Your task to perform on an android device: Turn on the flashlight Image 0: 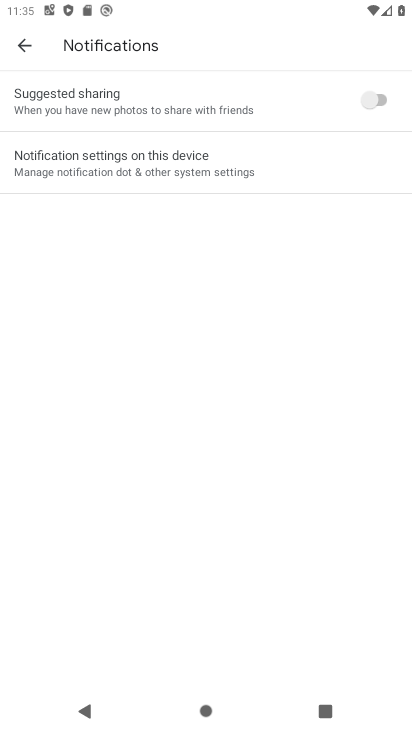
Step 0: press home button
Your task to perform on an android device: Turn on the flashlight Image 1: 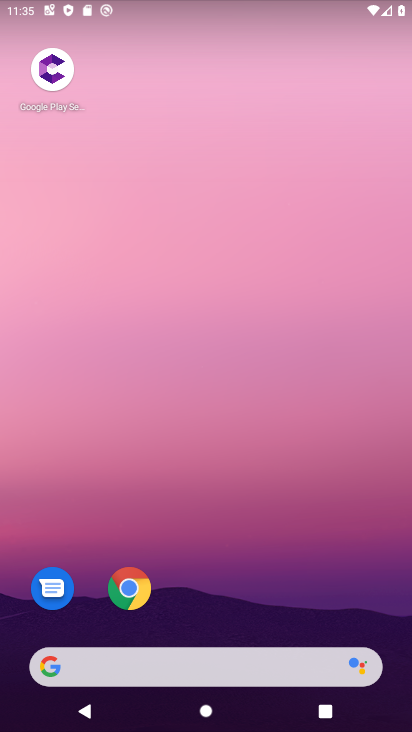
Step 1: drag from (237, 431) to (216, 62)
Your task to perform on an android device: Turn on the flashlight Image 2: 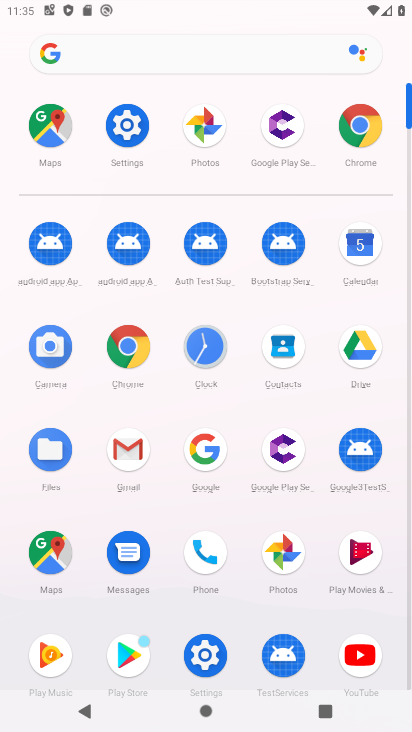
Step 2: click (122, 125)
Your task to perform on an android device: Turn on the flashlight Image 3: 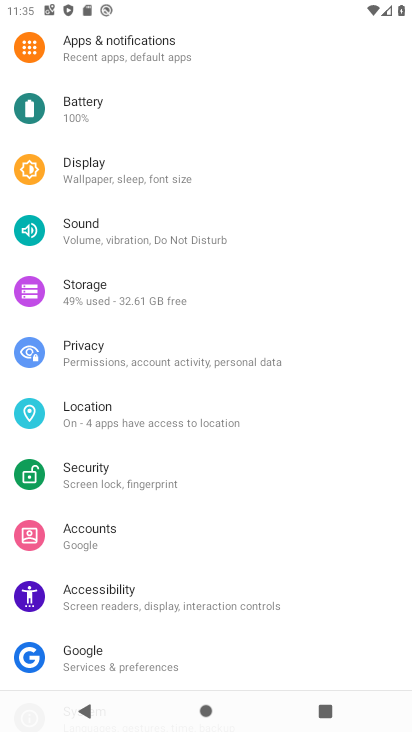
Step 3: drag from (211, 145) to (271, 617)
Your task to perform on an android device: Turn on the flashlight Image 4: 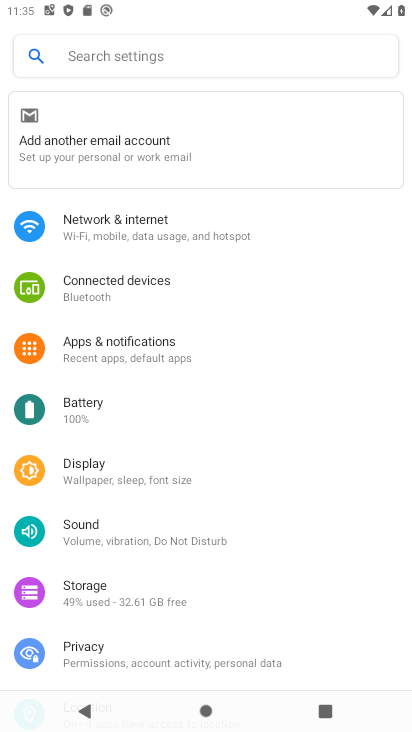
Step 4: click (260, 51)
Your task to perform on an android device: Turn on the flashlight Image 5: 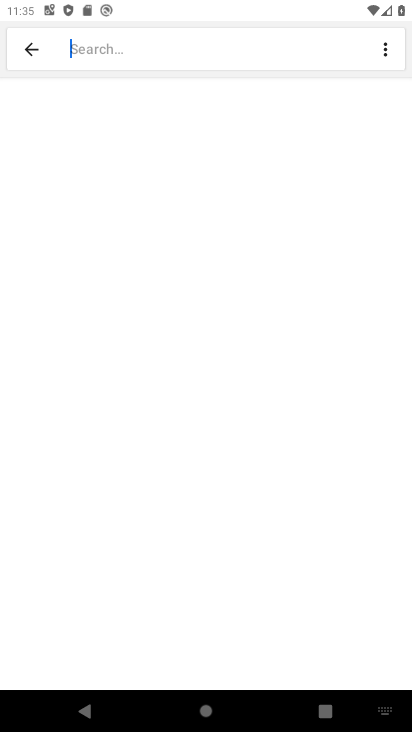
Step 5: type ""
Your task to perform on an android device: Turn on the flashlight Image 6: 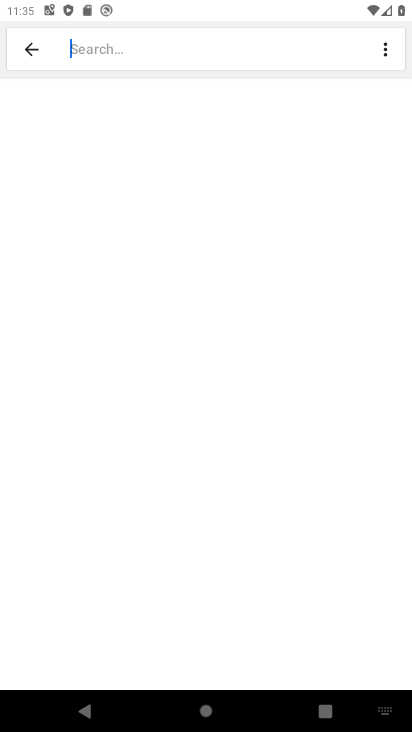
Step 6: type "flashlight"
Your task to perform on an android device: Turn on the flashlight Image 7: 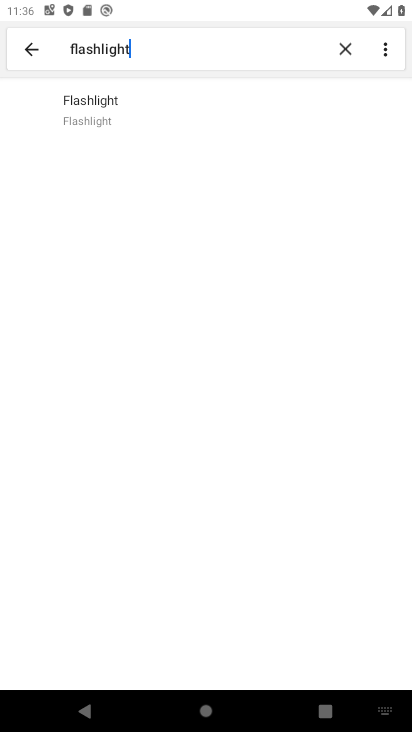
Step 7: click (95, 118)
Your task to perform on an android device: Turn on the flashlight Image 8: 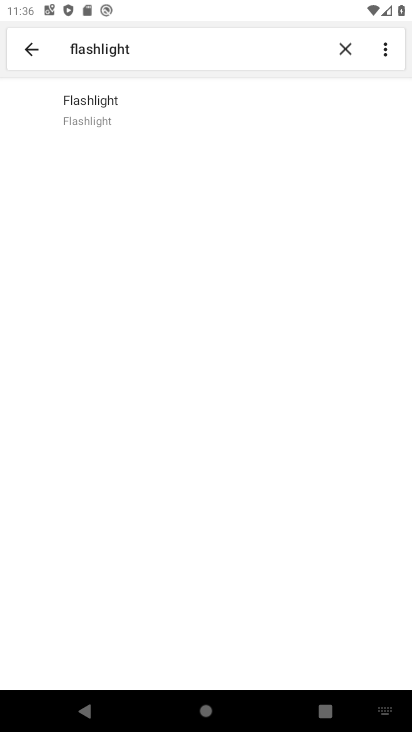
Step 8: task complete